Your task to perform on an android device: allow notifications from all sites in the chrome app Image 0: 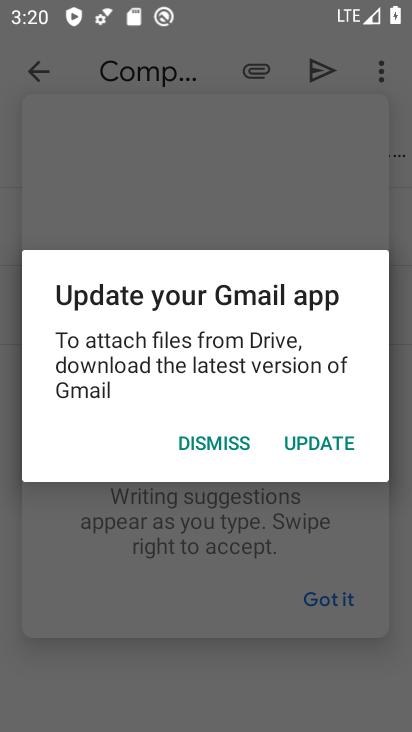
Step 0: press home button
Your task to perform on an android device: allow notifications from all sites in the chrome app Image 1: 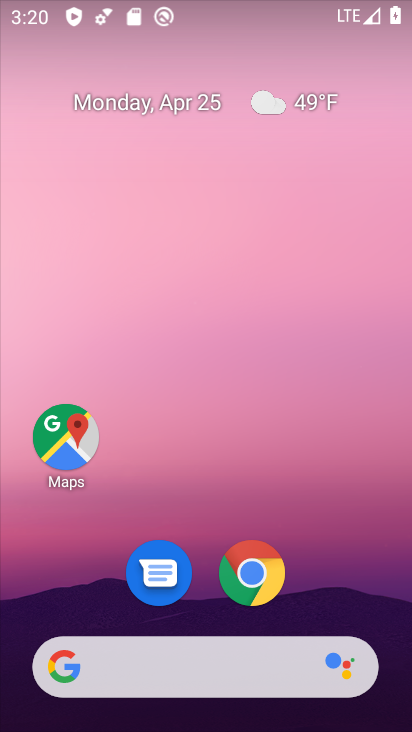
Step 1: click (264, 569)
Your task to perform on an android device: allow notifications from all sites in the chrome app Image 2: 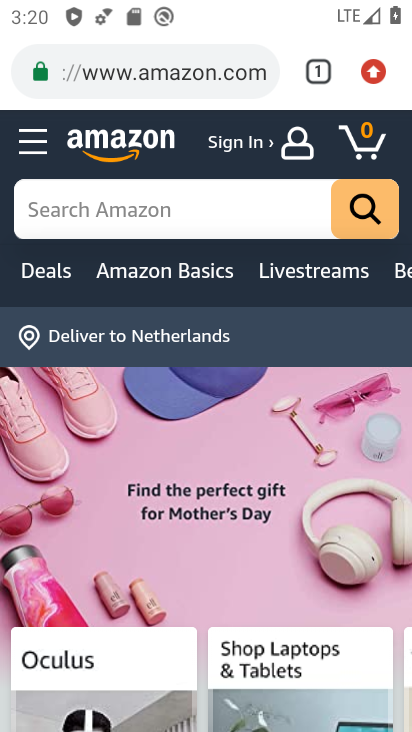
Step 2: click (381, 78)
Your task to perform on an android device: allow notifications from all sites in the chrome app Image 3: 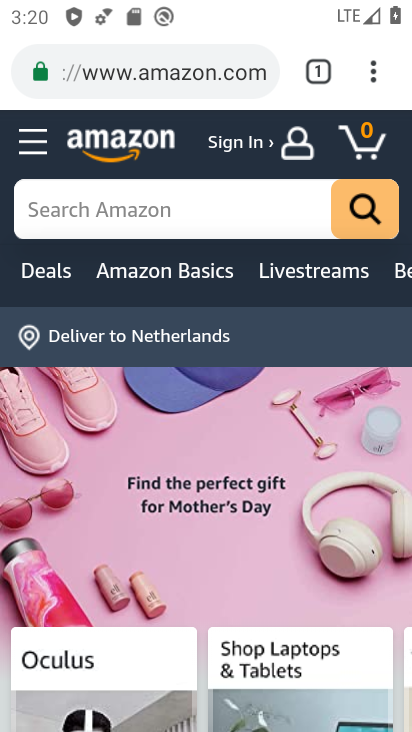
Step 3: press home button
Your task to perform on an android device: allow notifications from all sites in the chrome app Image 4: 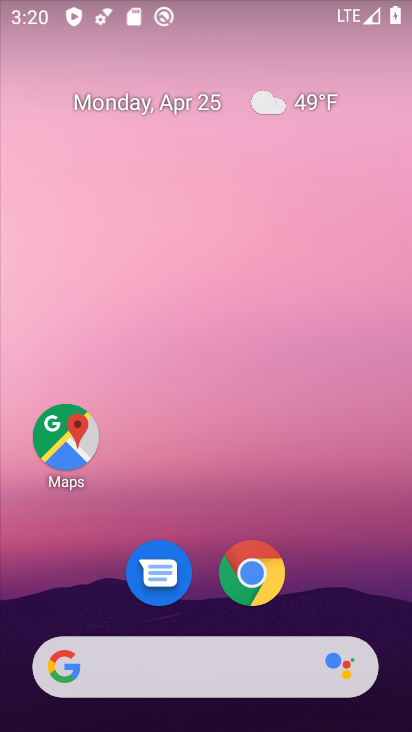
Step 4: click (265, 557)
Your task to perform on an android device: allow notifications from all sites in the chrome app Image 5: 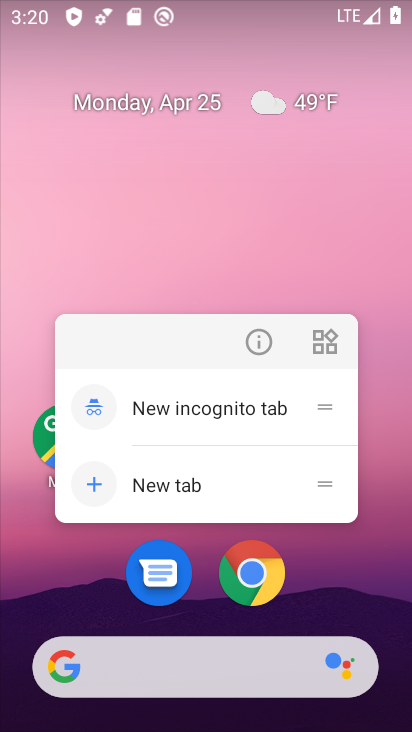
Step 5: click (263, 341)
Your task to perform on an android device: allow notifications from all sites in the chrome app Image 6: 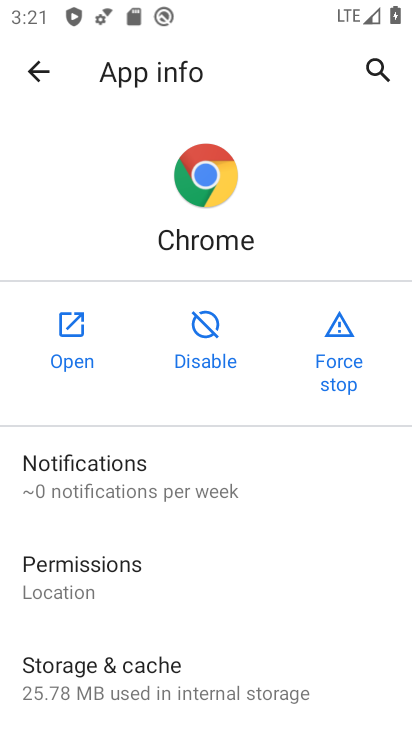
Step 6: click (162, 488)
Your task to perform on an android device: allow notifications from all sites in the chrome app Image 7: 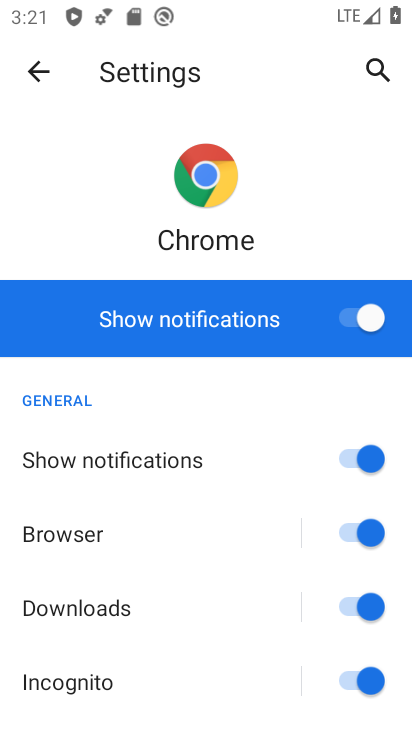
Step 7: task complete